Your task to perform on an android device: Open Google Maps Image 0: 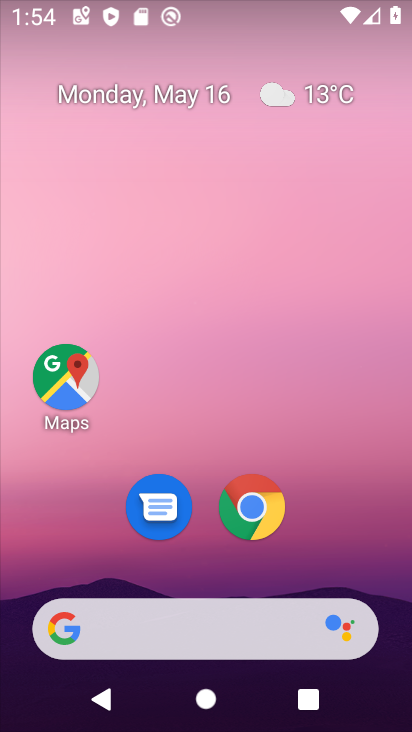
Step 0: drag from (391, 578) to (387, 156)
Your task to perform on an android device: Open Google Maps Image 1: 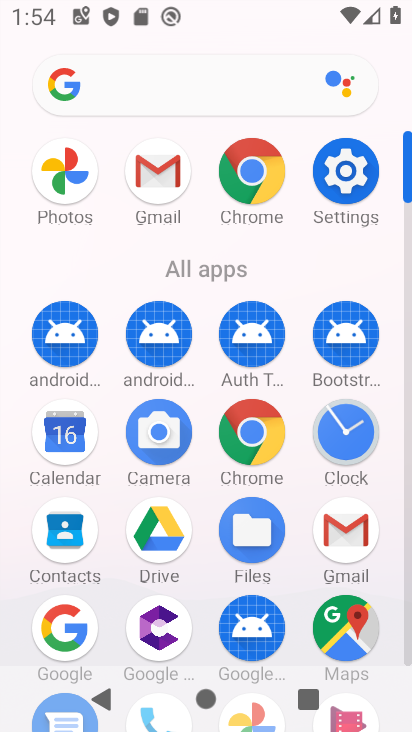
Step 1: click (351, 629)
Your task to perform on an android device: Open Google Maps Image 2: 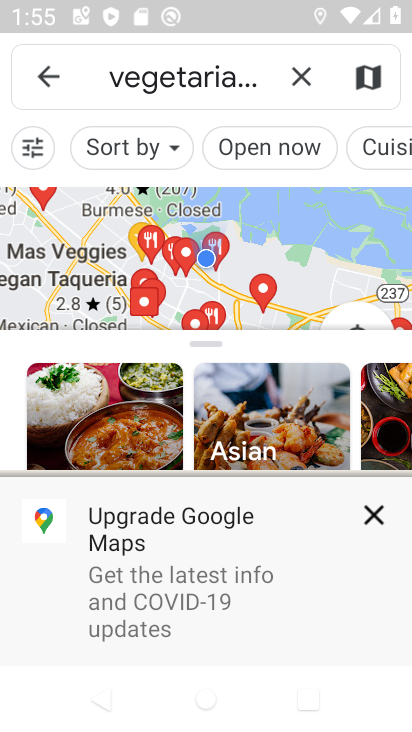
Step 2: task complete